Your task to perform on an android device: Do I have any events this weekend? Image 0: 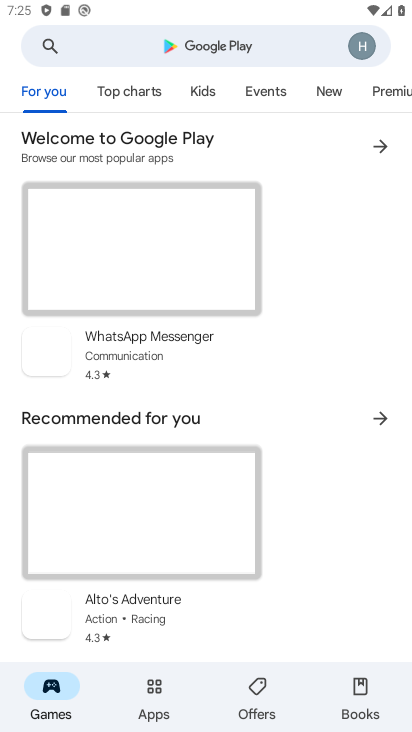
Step 0: press home button
Your task to perform on an android device: Do I have any events this weekend? Image 1: 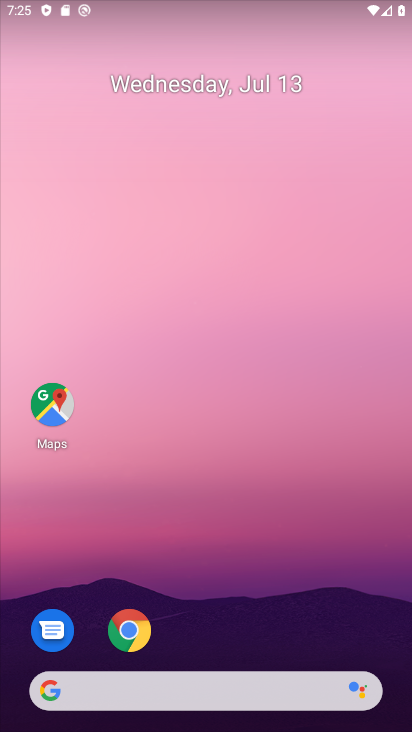
Step 1: drag from (320, 605) to (330, 164)
Your task to perform on an android device: Do I have any events this weekend? Image 2: 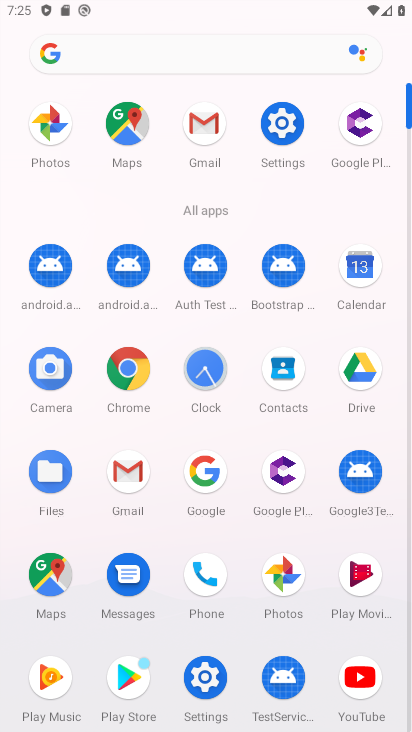
Step 2: click (359, 275)
Your task to perform on an android device: Do I have any events this weekend? Image 3: 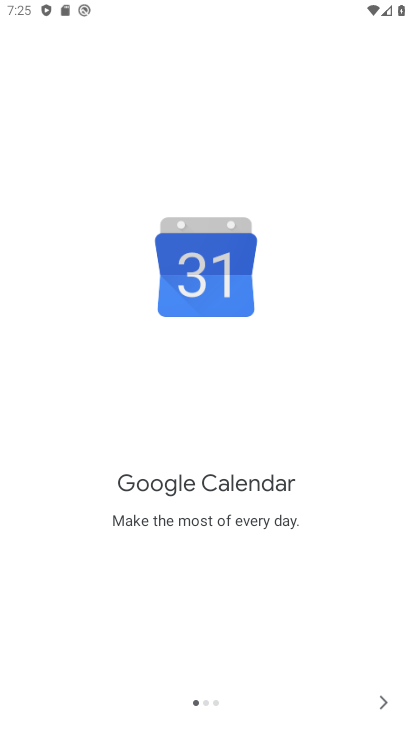
Step 3: click (387, 706)
Your task to perform on an android device: Do I have any events this weekend? Image 4: 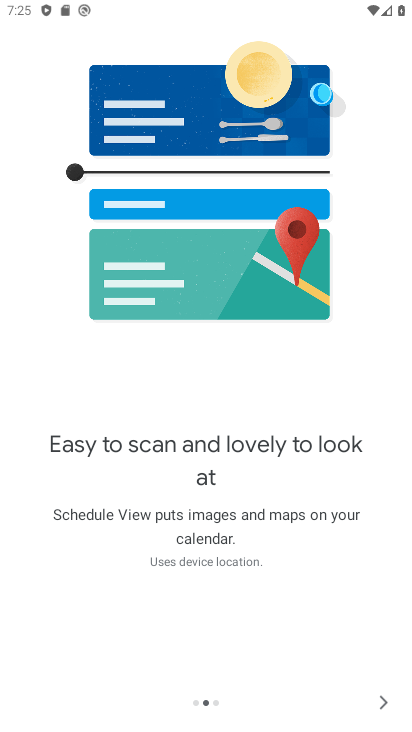
Step 4: click (387, 706)
Your task to perform on an android device: Do I have any events this weekend? Image 5: 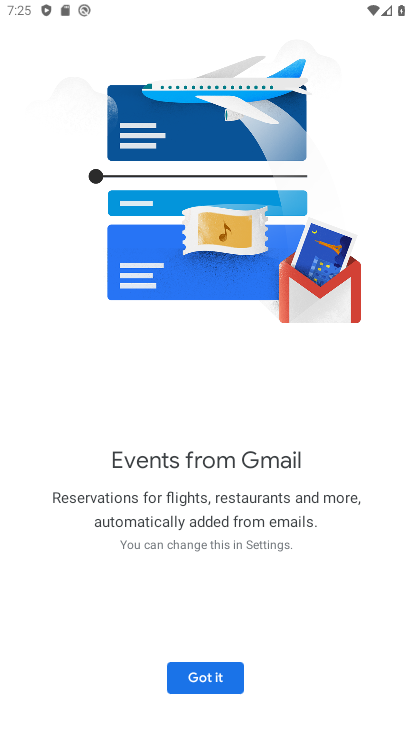
Step 5: click (221, 685)
Your task to perform on an android device: Do I have any events this weekend? Image 6: 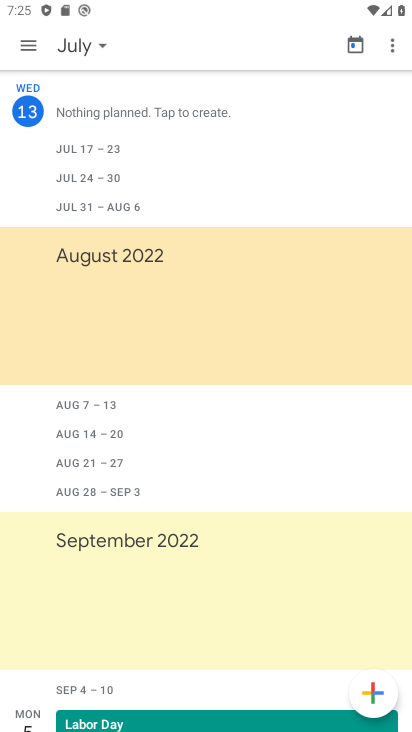
Step 6: click (105, 47)
Your task to perform on an android device: Do I have any events this weekend? Image 7: 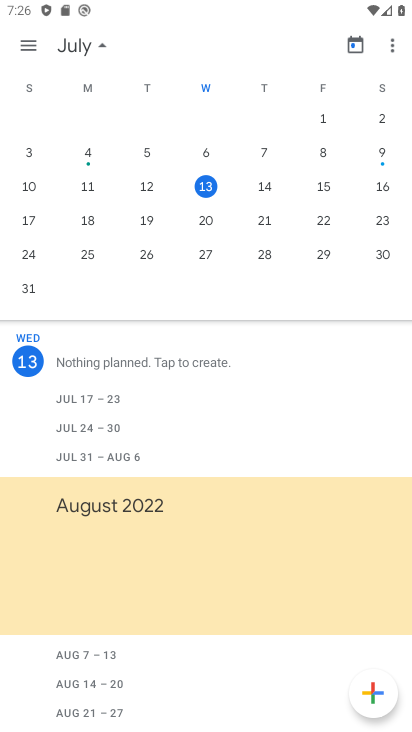
Step 7: task complete